Your task to perform on an android device: turn off airplane mode Image 0: 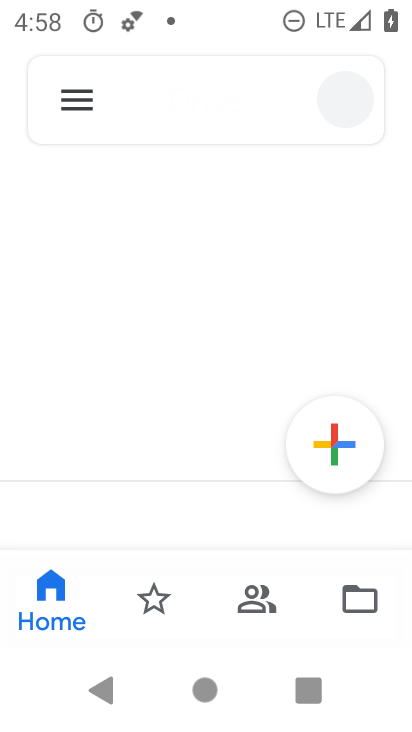
Step 0: drag from (341, 465) to (357, 234)
Your task to perform on an android device: turn off airplane mode Image 1: 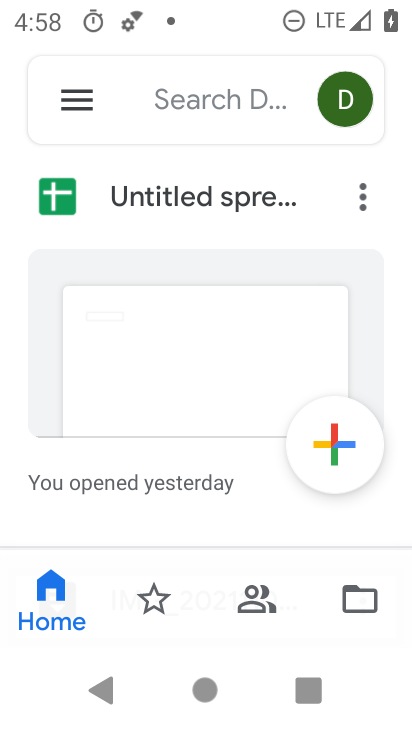
Step 1: press home button
Your task to perform on an android device: turn off airplane mode Image 2: 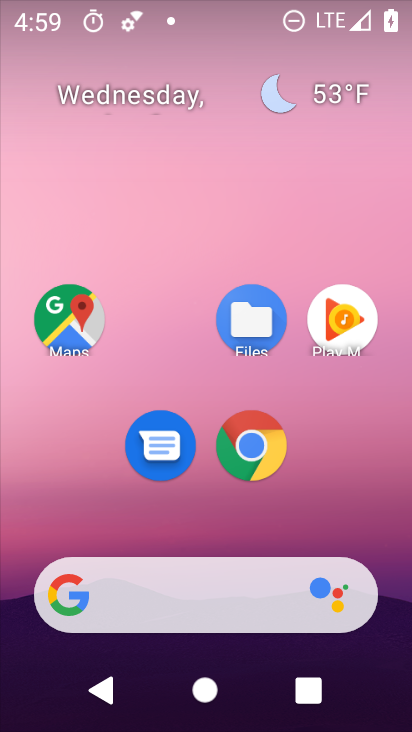
Step 2: drag from (352, 522) to (335, 59)
Your task to perform on an android device: turn off airplane mode Image 3: 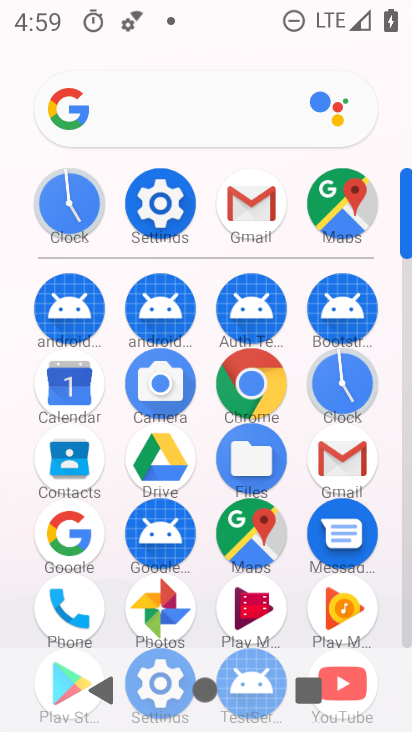
Step 3: click (178, 222)
Your task to perform on an android device: turn off airplane mode Image 4: 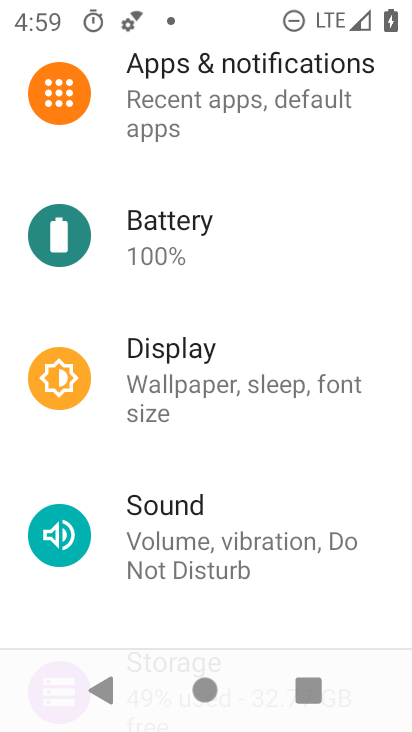
Step 4: drag from (250, 168) to (255, 548)
Your task to perform on an android device: turn off airplane mode Image 5: 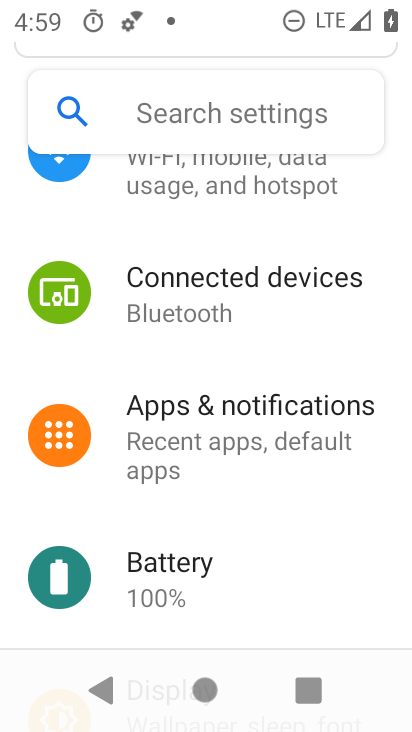
Step 5: drag from (279, 225) to (282, 525)
Your task to perform on an android device: turn off airplane mode Image 6: 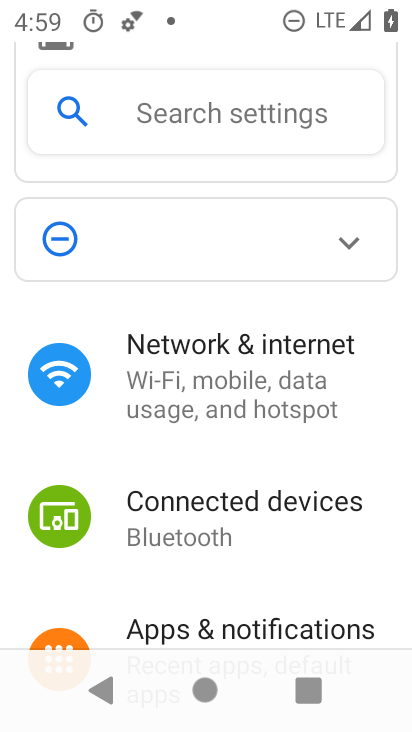
Step 6: click (289, 397)
Your task to perform on an android device: turn off airplane mode Image 7: 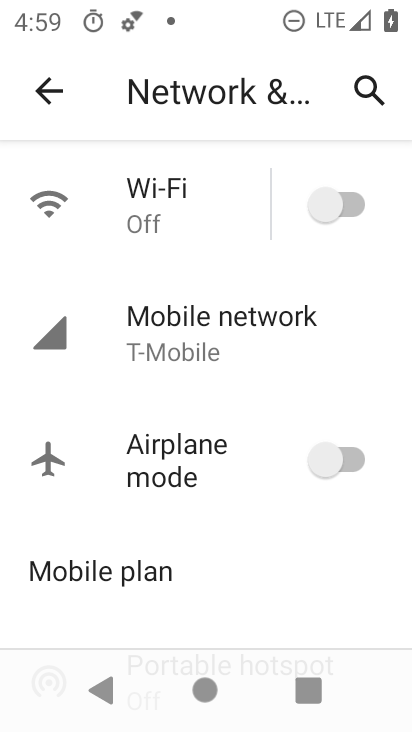
Step 7: task complete